Your task to perform on an android device: turn on bluetooth scan Image 0: 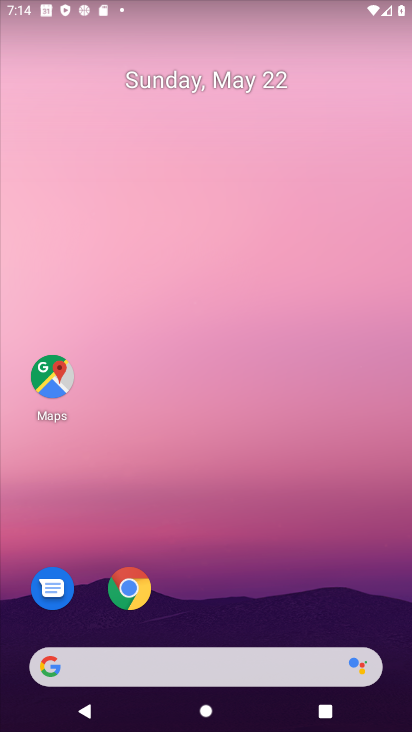
Step 0: drag from (262, 510) to (170, 92)
Your task to perform on an android device: turn on bluetooth scan Image 1: 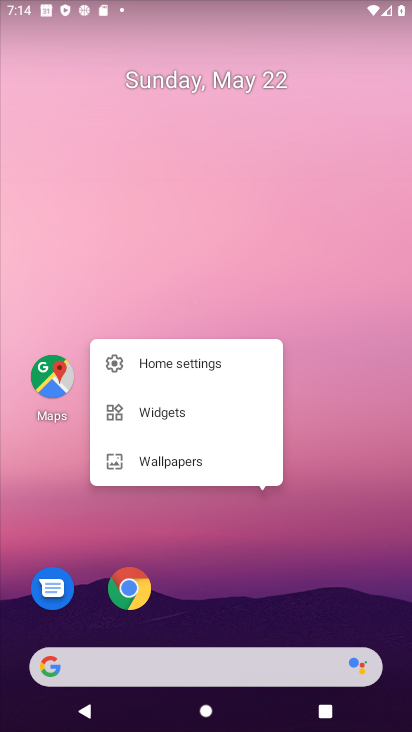
Step 1: click (328, 338)
Your task to perform on an android device: turn on bluetooth scan Image 2: 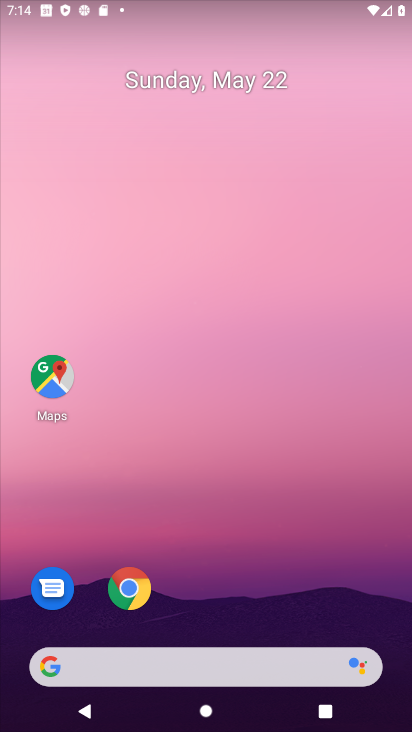
Step 2: drag from (228, 596) to (207, 33)
Your task to perform on an android device: turn on bluetooth scan Image 3: 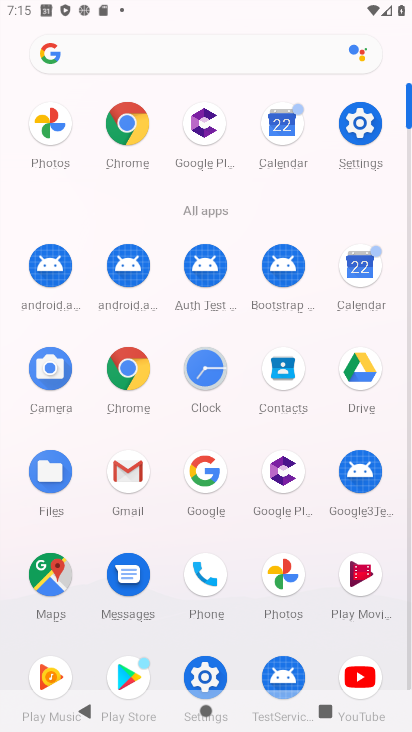
Step 3: click (362, 124)
Your task to perform on an android device: turn on bluetooth scan Image 4: 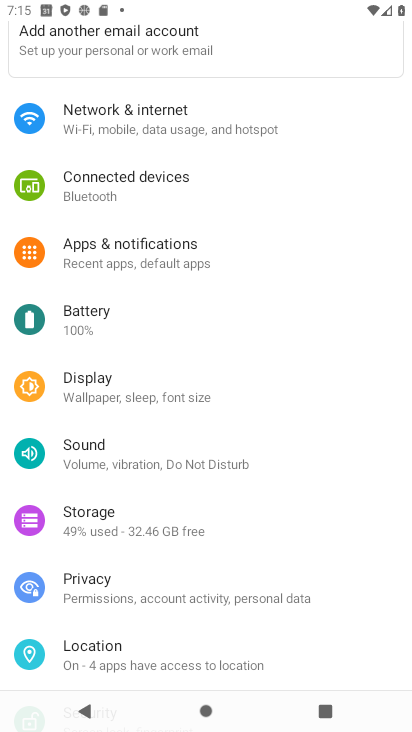
Step 4: click (94, 642)
Your task to perform on an android device: turn on bluetooth scan Image 5: 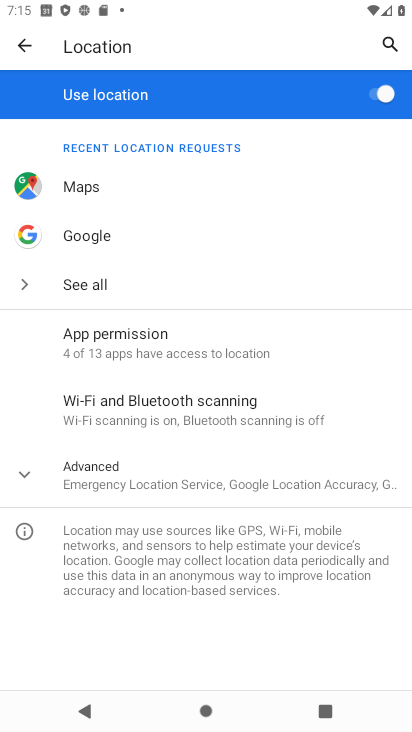
Step 5: click (30, 467)
Your task to perform on an android device: turn on bluetooth scan Image 6: 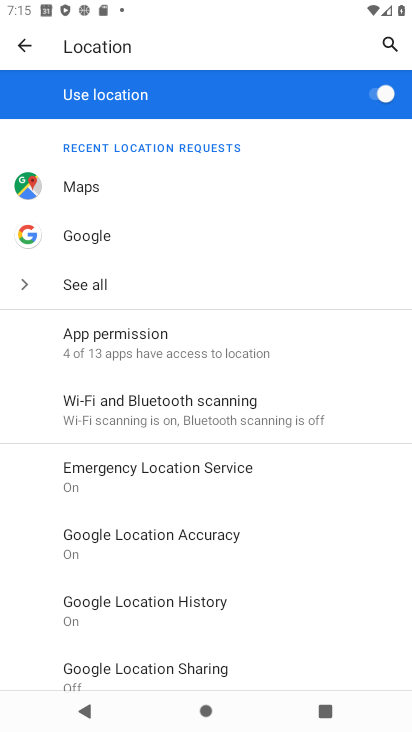
Step 6: click (138, 393)
Your task to perform on an android device: turn on bluetooth scan Image 7: 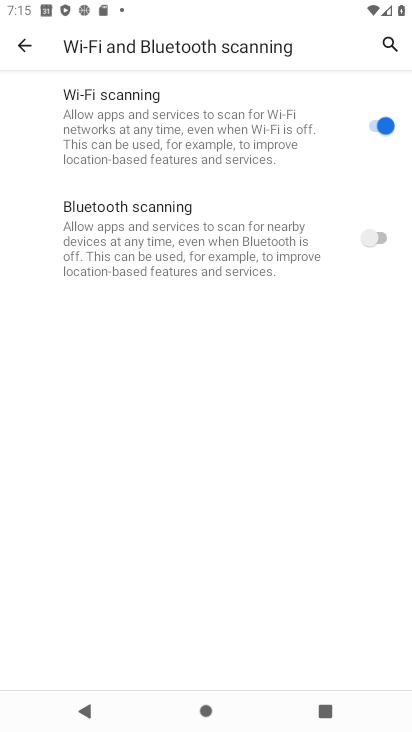
Step 7: click (366, 236)
Your task to perform on an android device: turn on bluetooth scan Image 8: 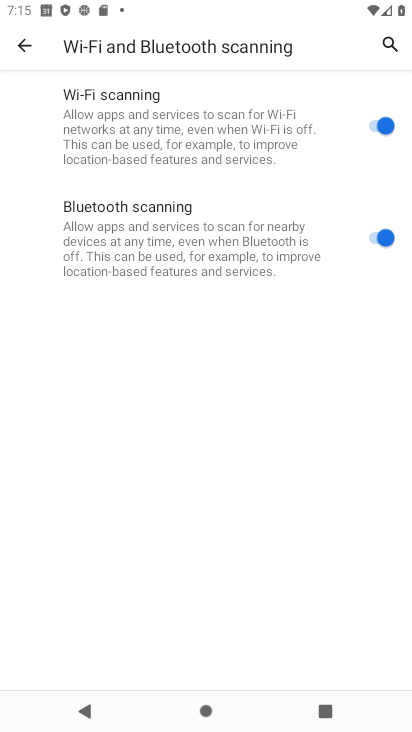
Step 8: task complete